Your task to perform on an android device: turn off picture-in-picture Image 0: 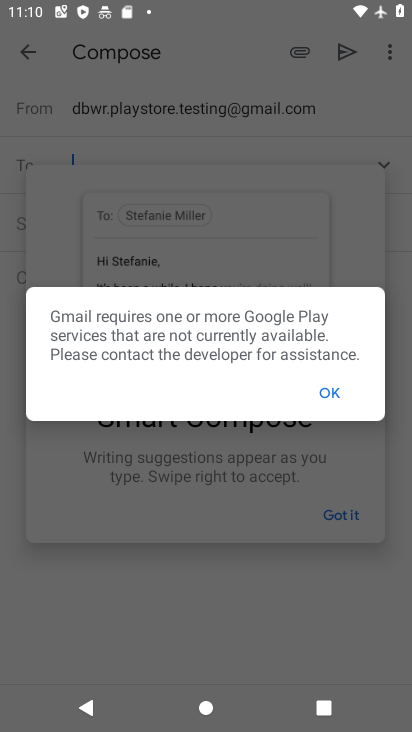
Step 0: press home button
Your task to perform on an android device: turn off picture-in-picture Image 1: 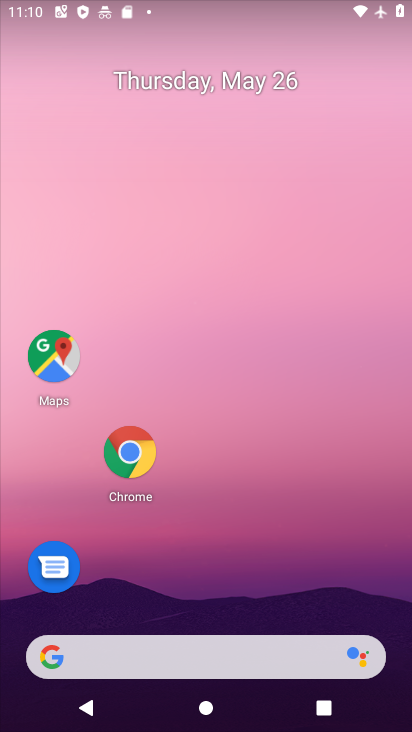
Step 1: click (134, 443)
Your task to perform on an android device: turn off picture-in-picture Image 2: 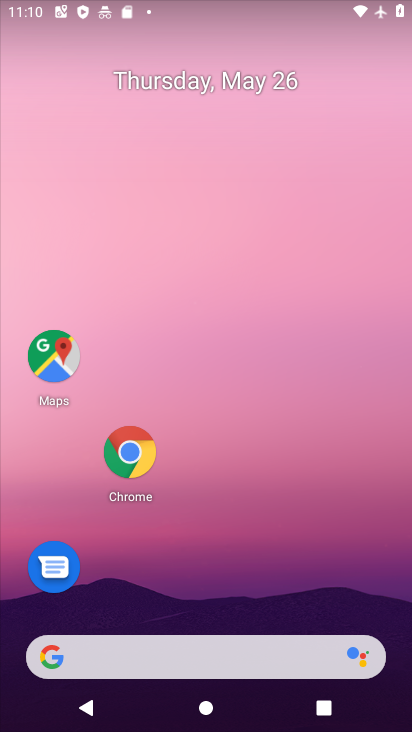
Step 2: click (251, 281)
Your task to perform on an android device: turn off picture-in-picture Image 3: 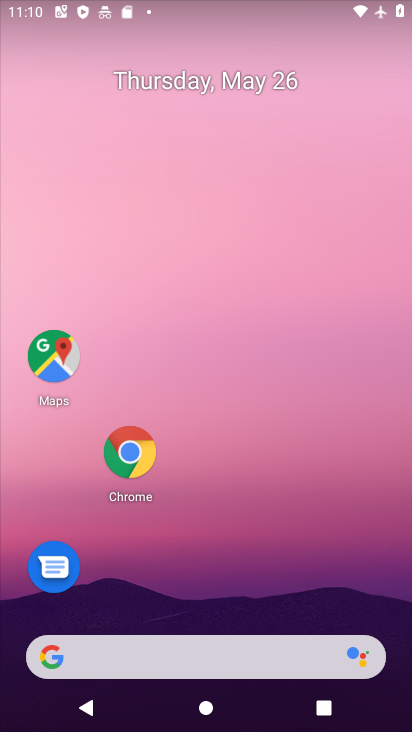
Step 3: drag from (129, 444) to (173, 398)
Your task to perform on an android device: turn off picture-in-picture Image 4: 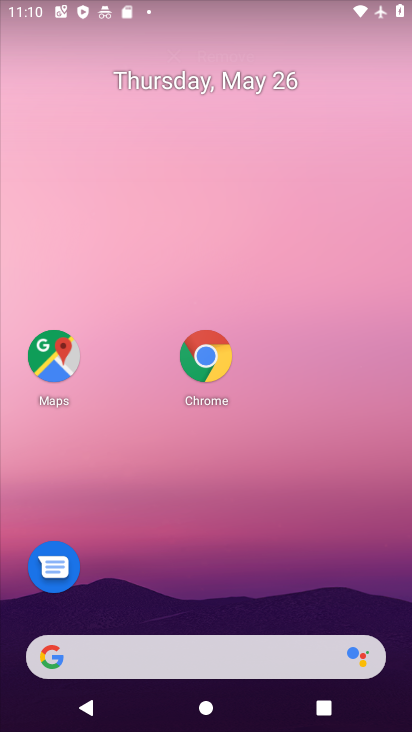
Step 4: click (254, 287)
Your task to perform on an android device: turn off picture-in-picture Image 5: 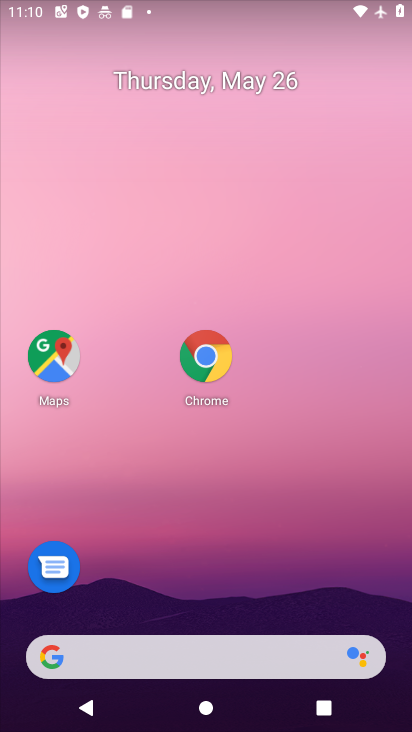
Step 5: drag from (220, 360) to (235, 329)
Your task to perform on an android device: turn off picture-in-picture Image 6: 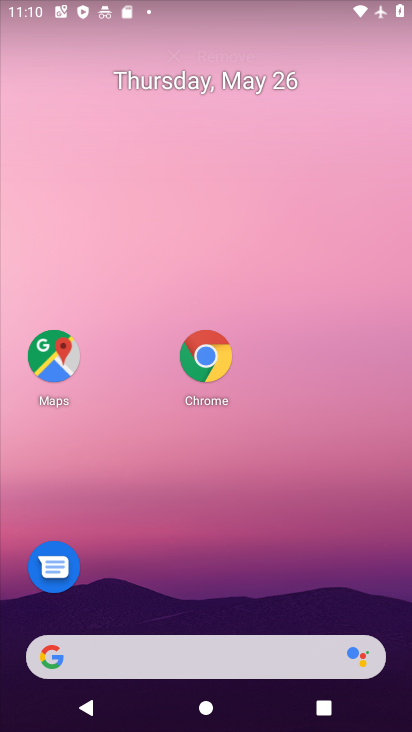
Step 6: click (323, 176)
Your task to perform on an android device: turn off picture-in-picture Image 7: 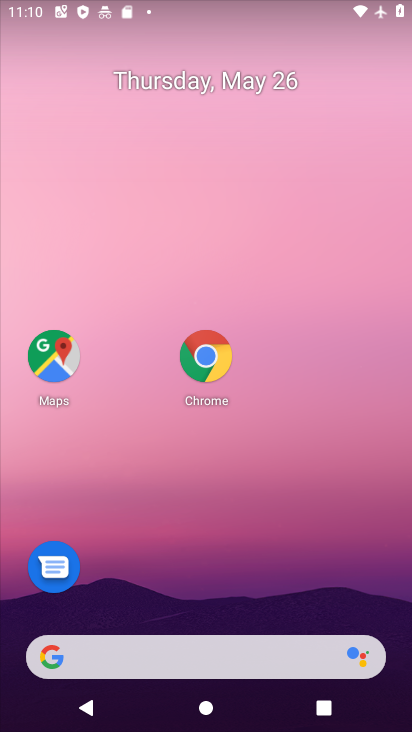
Step 7: click (214, 359)
Your task to perform on an android device: turn off picture-in-picture Image 8: 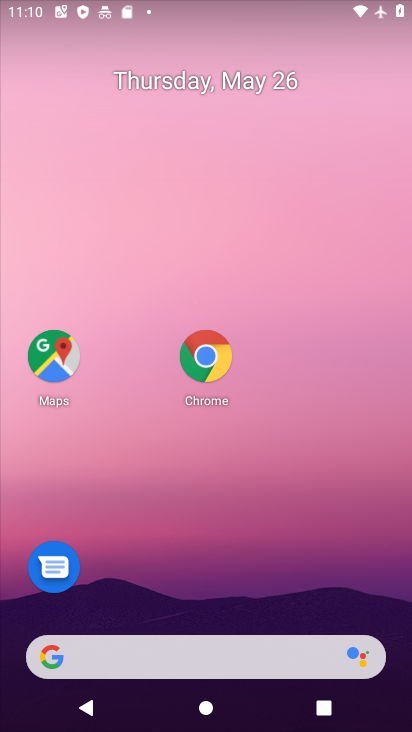
Step 8: click (327, 190)
Your task to perform on an android device: turn off picture-in-picture Image 9: 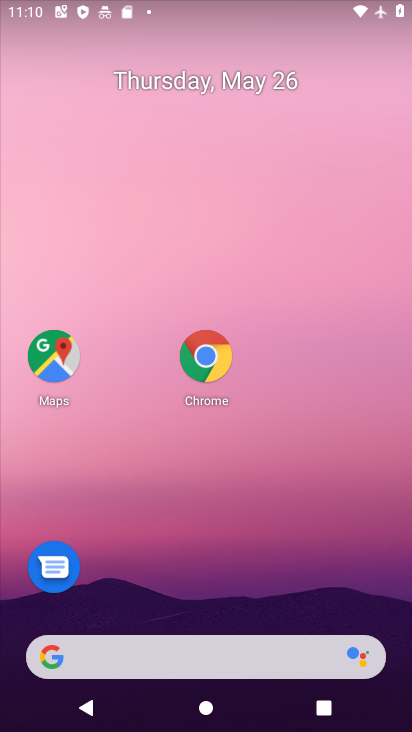
Step 9: drag from (215, 351) to (169, 542)
Your task to perform on an android device: turn off picture-in-picture Image 10: 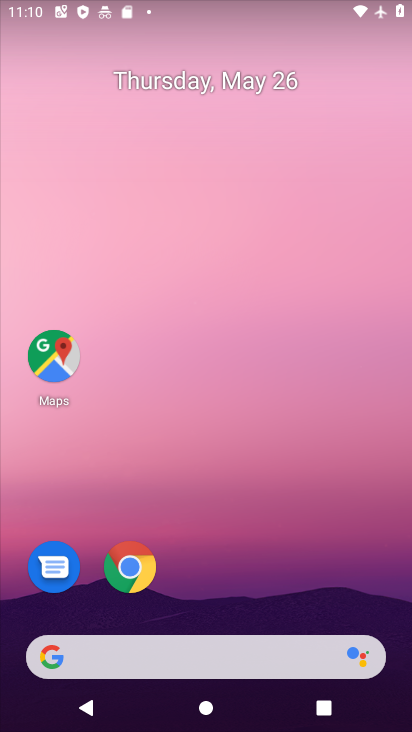
Step 10: click (135, 567)
Your task to perform on an android device: turn off picture-in-picture Image 11: 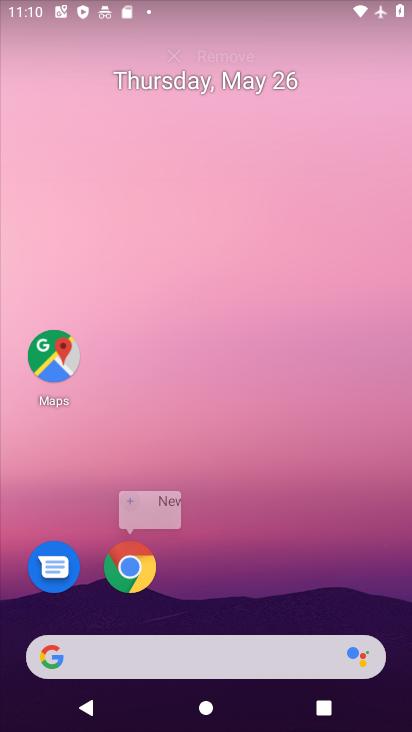
Step 11: click (260, 392)
Your task to perform on an android device: turn off picture-in-picture Image 12: 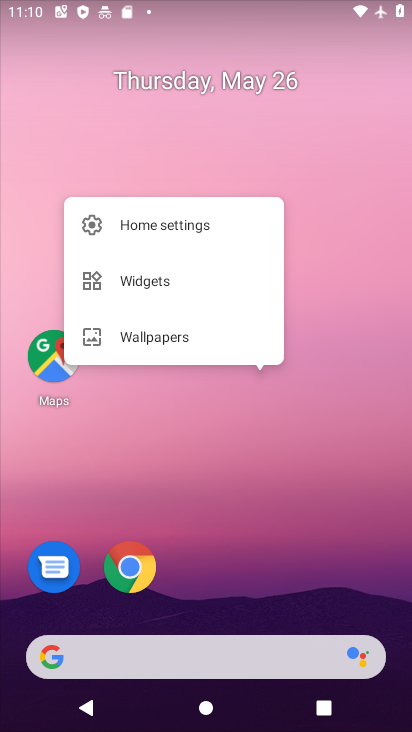
Step 12: click (124, 564)
Your task to perform on an android device: turn off picture-in-picture Image 13: 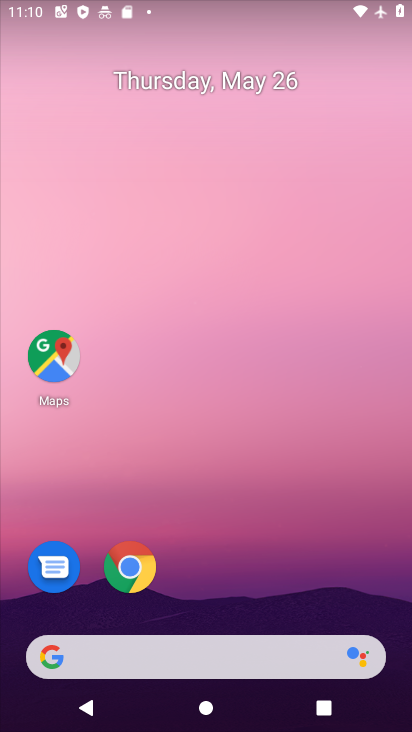
Step 13: click (132, 557)
Your task to perform on an android device: turn off picture-in-picture Image 14: 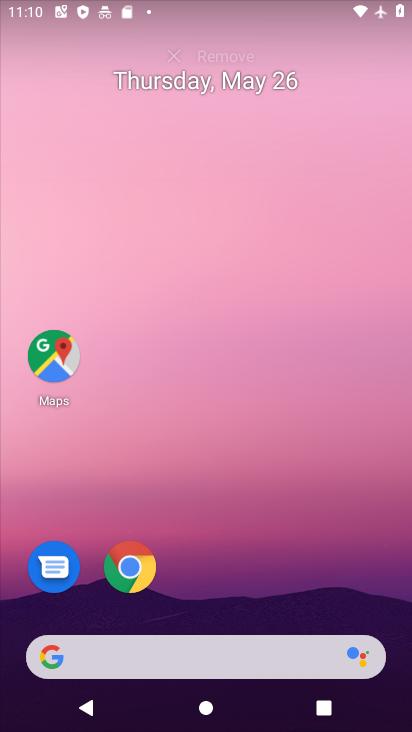
Step 14: click (252, 400)
Your task to perform on an android device: turn off picture-in-picture Image 15: 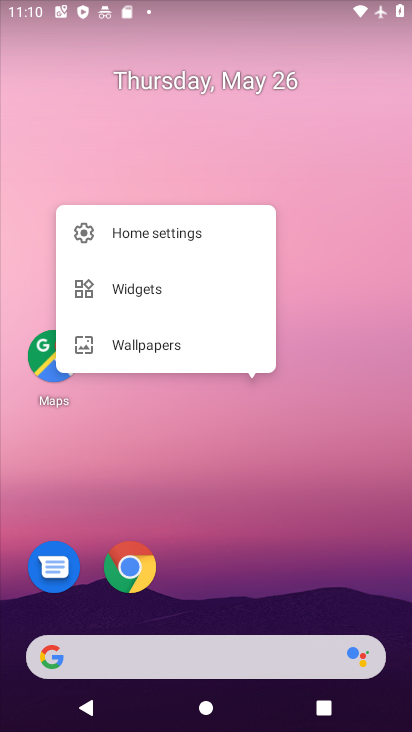
Step 15: click (140, 563)
Your task to perform on an android device: turn off picture-in-picture Image 16: 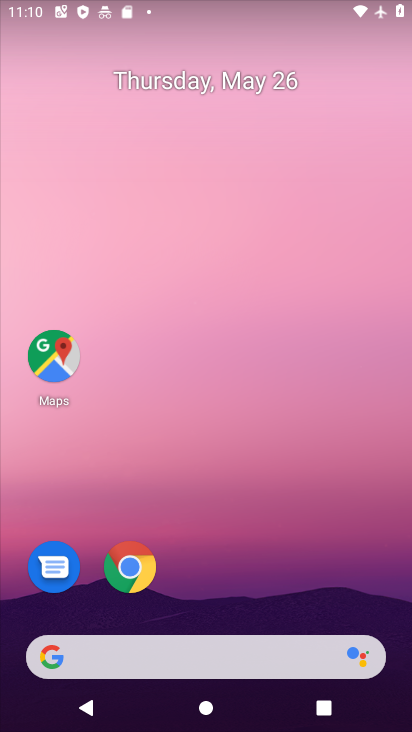
Step 16: click (129, 554)
Your task to perform on an android device: turn off picture-in-picture Image 17: 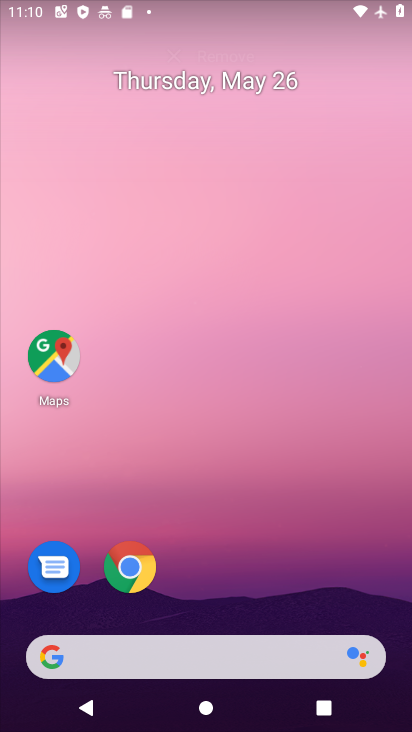
Step 17: click (245, 402)
Your task to perform on an android device: turn off picture-in-picture Image 18: 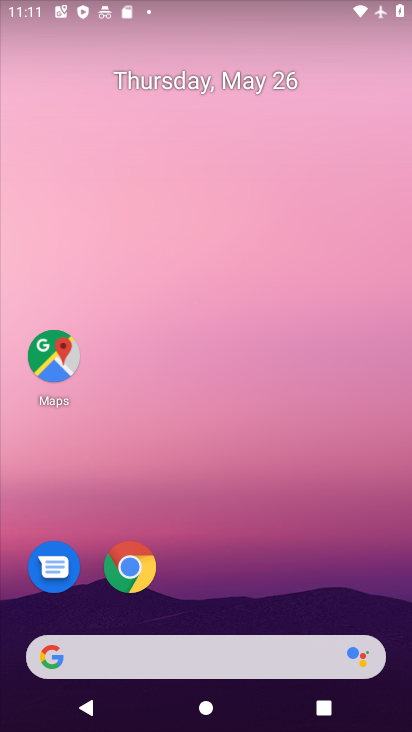
Step 18: click (135, 564)
Your task to perform on an android device: turn off picture-in-picture Image 19: 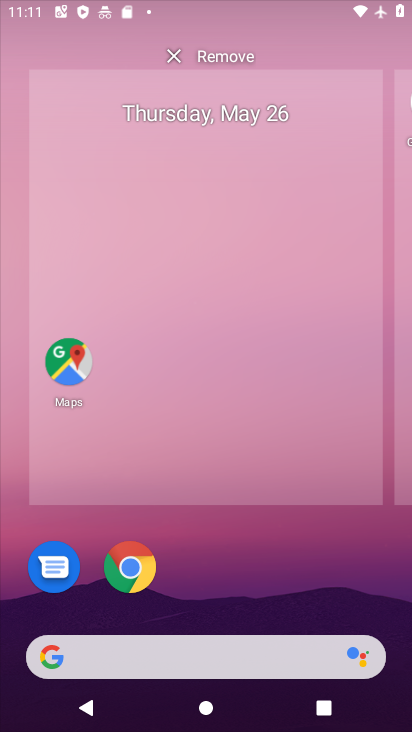
Step 19: click (249, 397)
Your task to perform on an android device: turn off picture-in-picture Image 20: 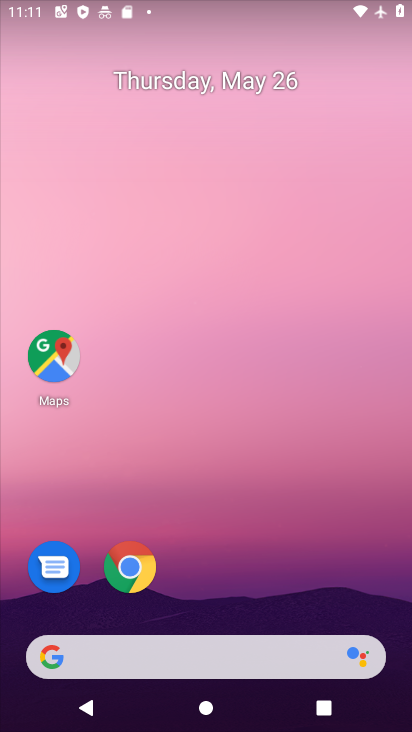
Step 20: drag from (142, 561) to (173, 519)
Your task to perform on an android device: turn off picture-in-picture Image 21: 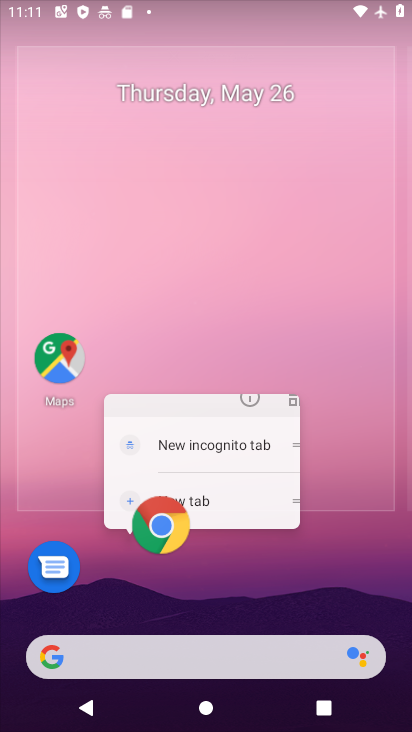
Step 21: click (240, 391)
Your task to perform on an android device: turn off picture-in-picture Image 22: 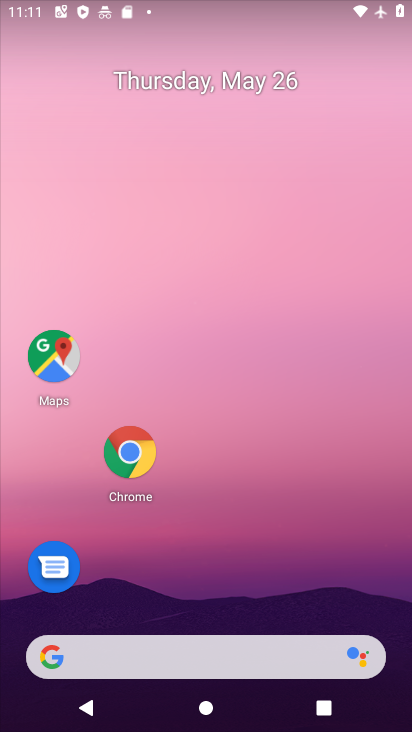
Step 22: click (135, 450)
Your task to perform on an android device: turn off picture-in-picture Image 23: 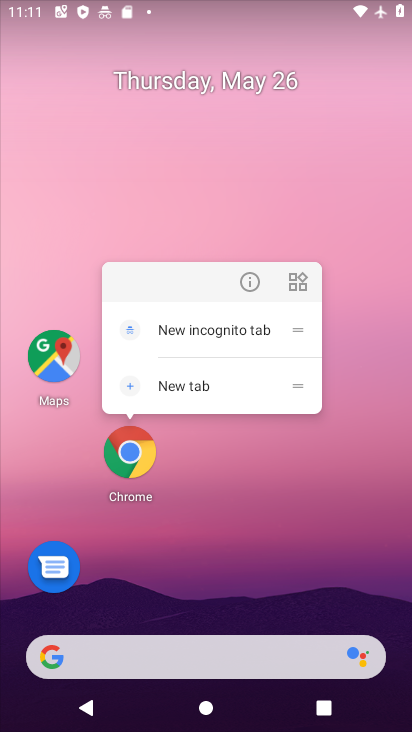
Step 23: click (252, 286)
Your task to perform on an android device: turn off picture-in-picture Image 24: 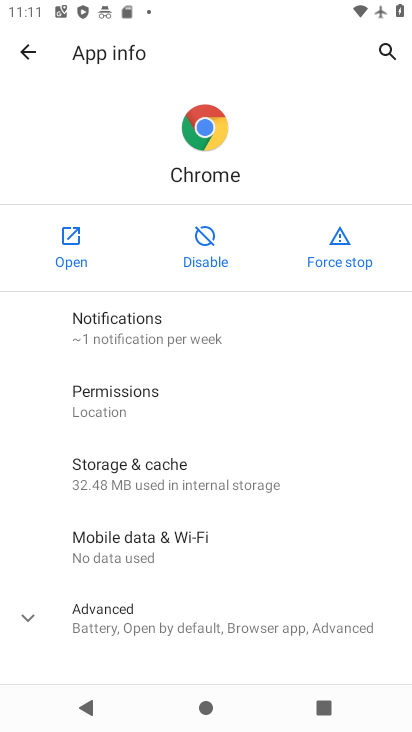
Step 24: click (151, 622)
Your task to perform on an android device: turn off picture-in-picture Image 25: 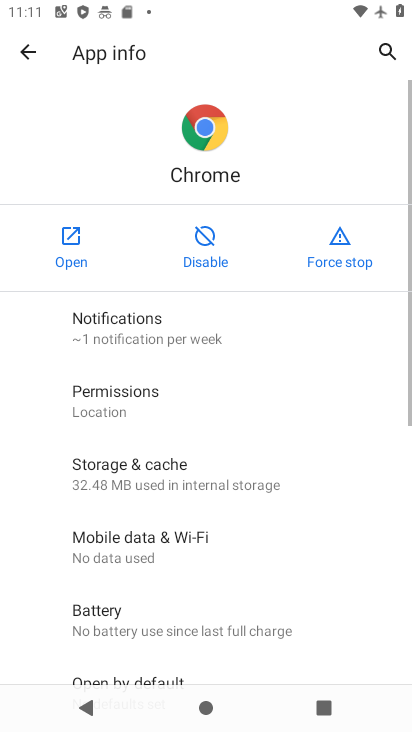
Step 25: drag from (220, 560) to (372, 167)
Your task to perform on an android device: turn off picture-in-picture Image 26: 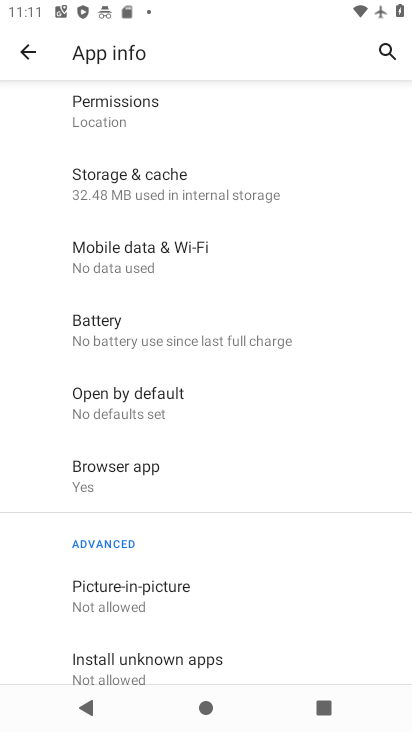
Step 26: click (140, 597)
Your task to perform on an android device: turn off picture-in-picture Image 27: 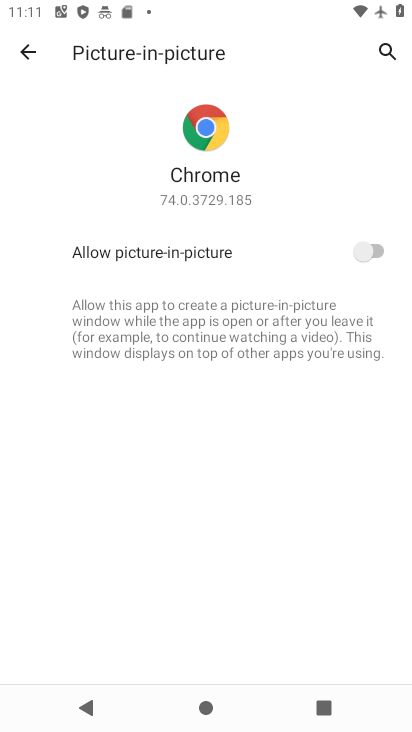
Step 27: task complete